Your task to perform on an android device: toggle translation in the chrome app Image 0: 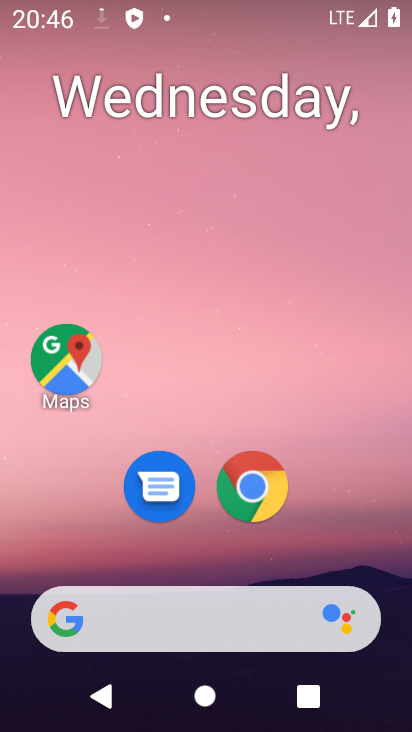
Step 0: click (269, 490)
Your task to perform on an android device: toggle translation in the chrome app Image 1: 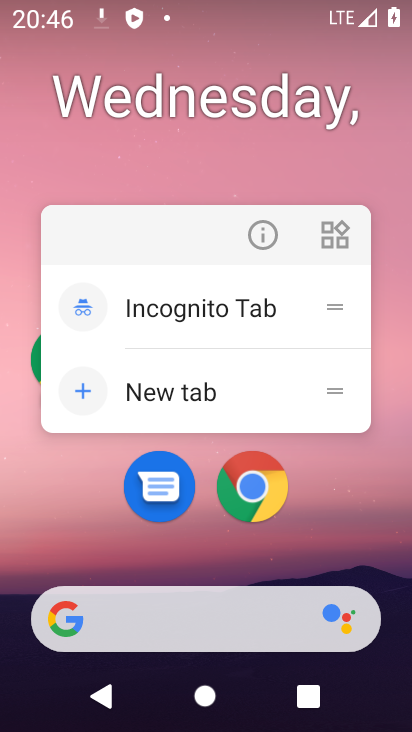
Step 1: click (268, 488)
Your task to perform on an android device: toggle translation in the chrome app Image 2: 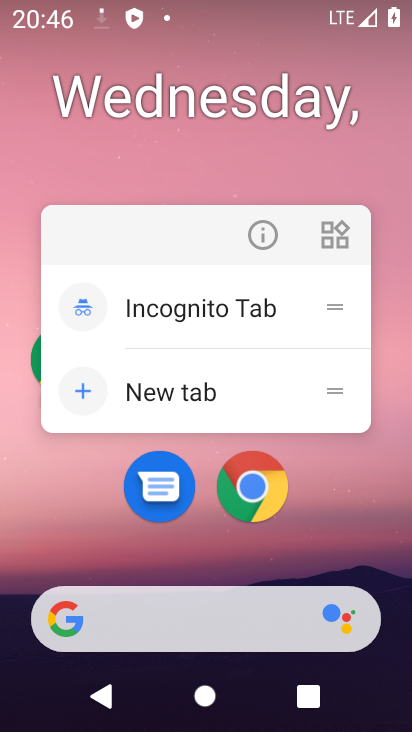
Step 2: click (252, 475)
Your task to perform on an android device: toggle translation in the chrome app Image 3: 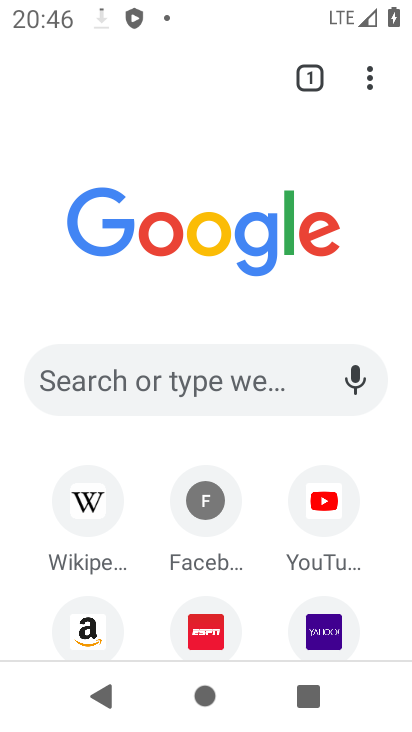
Step 3: drag from (367, 69) to (104, 533)
Your task to perform on an android device: toggle translation in the chrome app Image 4: 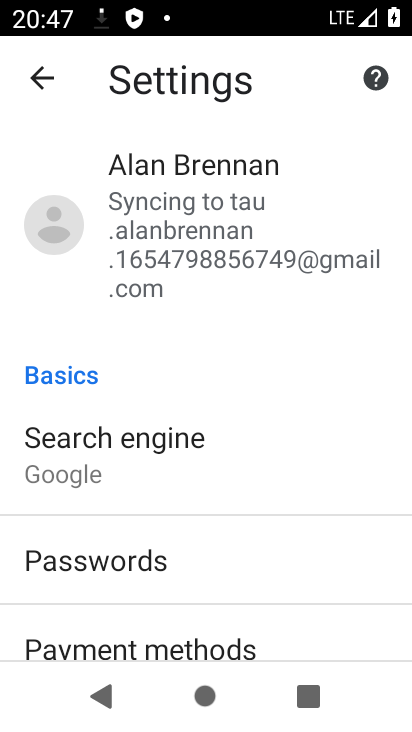
Step 4: drag from (201, 592) to (212, 342)
Your task to perform on an android device: toggle translation in the chrome app Image 5: 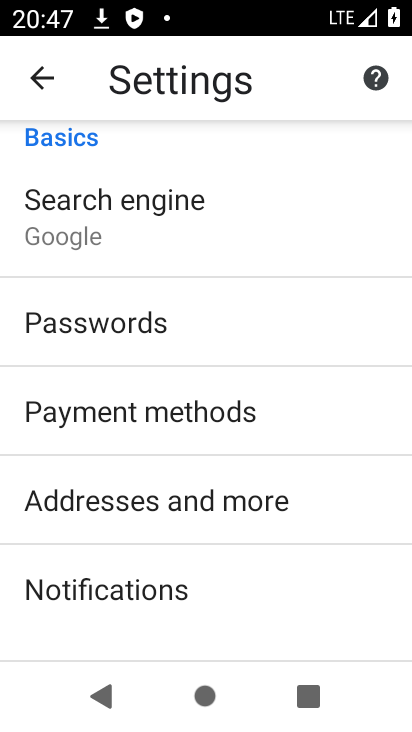
Step 5: drag from (152, 558) to (205, 232)
Your task to perform on an android device: toggle translation in the chrome app Image 6: 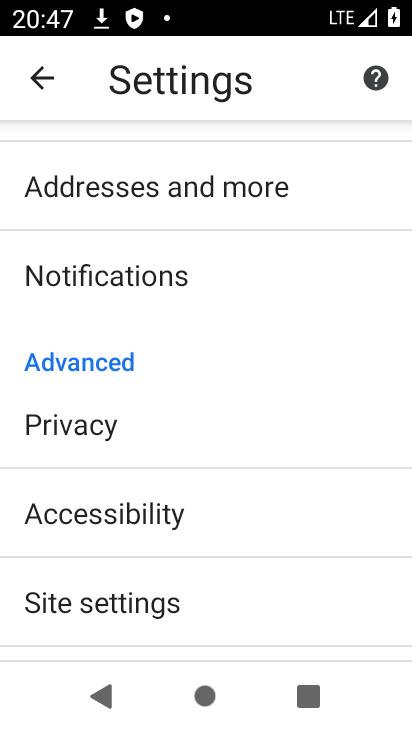
Step 6: drag from (128, 581) to (188, 216)
Your task to perform on an android device: toggle translation in the chrome app Image 7: 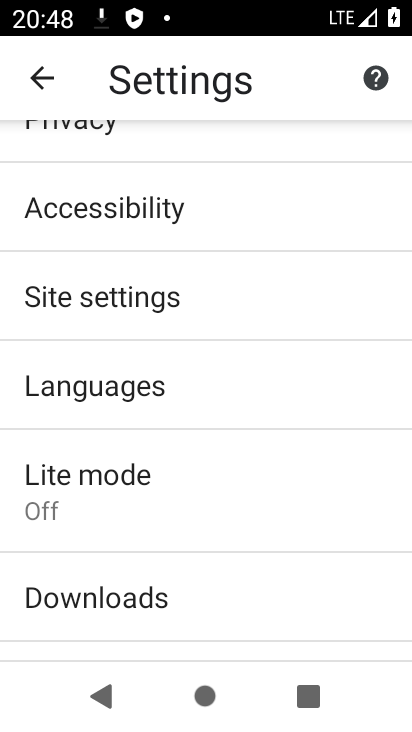
Step 7: click (135, 388)
Your task to perform on an android device: toggle translation in the chrome app Image 8: 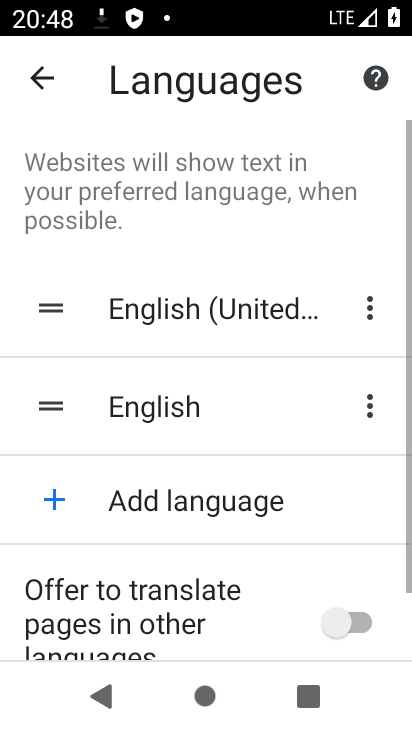
Step 8: drag from (137, 577) to (179, 362)
Your task to perform on an android device: toggle translation in the chrome app Image 9: 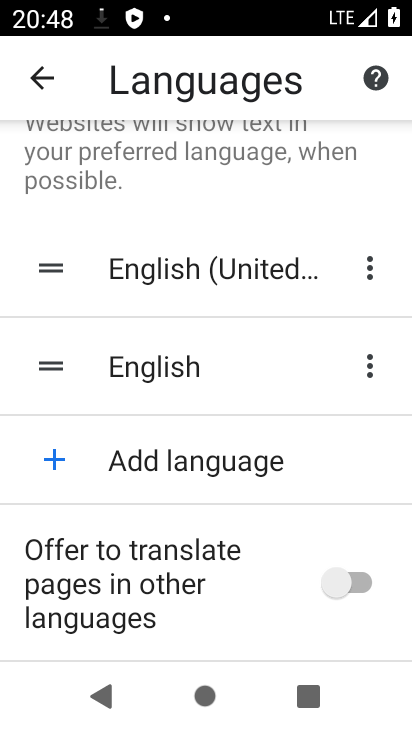
Step 9: click (341, 571)
Your task to perform on an android device: toggle translation in the chrome app Image 10: 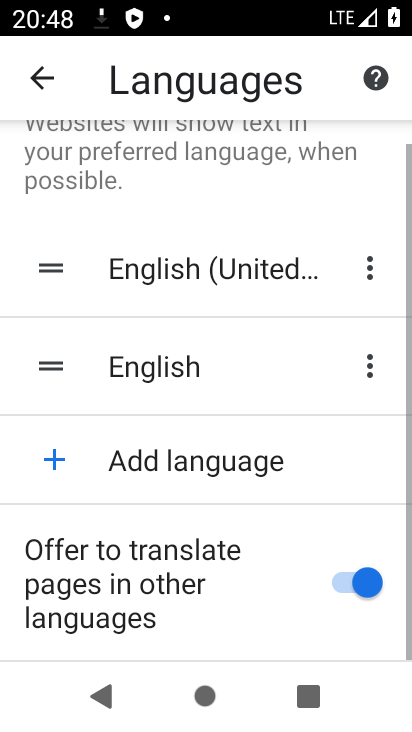
Step 10: task complete